Your task to perform on an android device: toggle airplane mode Image 0: 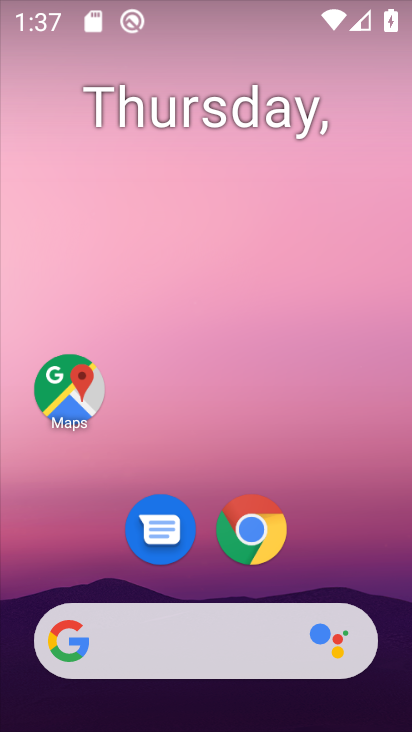
Step 0: drag from (305, 575) to (388, 131)
Your task to perform on an android device: toggle airplane mode Image 1: 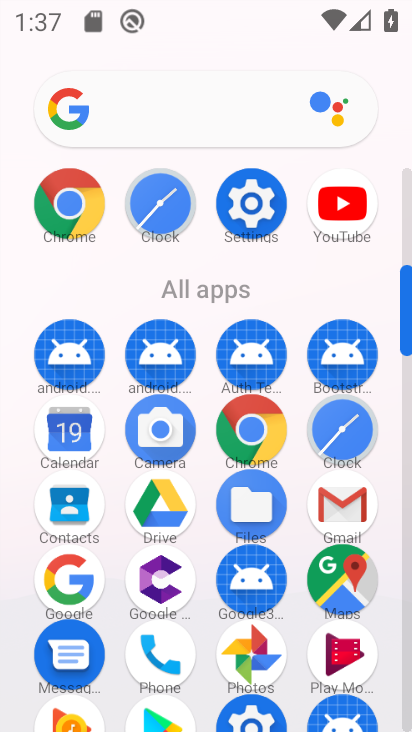
Step 1: click (245, 209)
Your task to perform on an android device: toggle airplane mode Image 2: 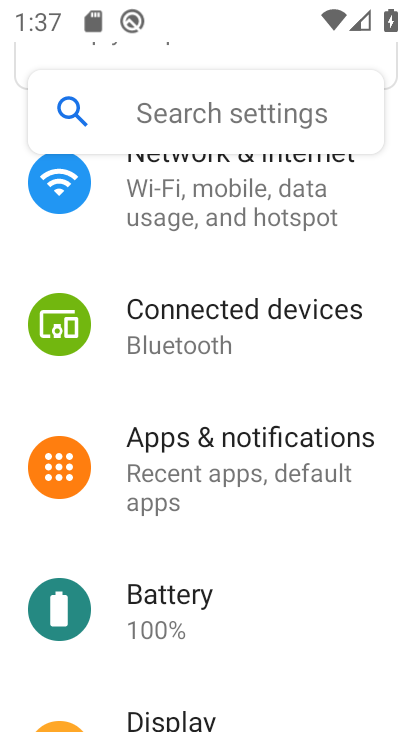
Step 2: click (250, 195)
Your task to perform on an android device: toggle airplane mode Image 3: 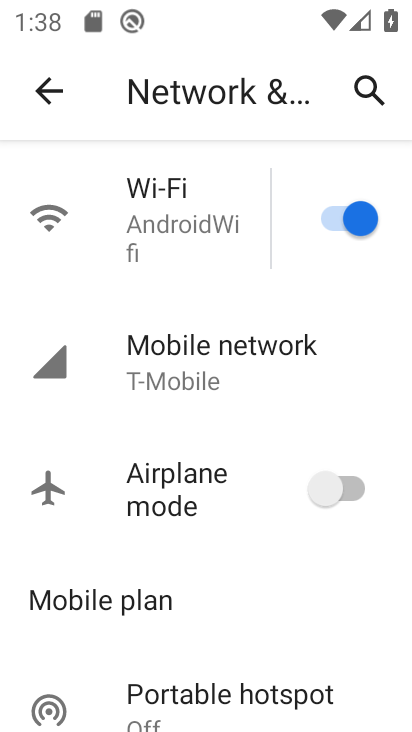
Step 3: click (339, 497)
Your task to perform on an android device: toggle airplane mode Image 4: 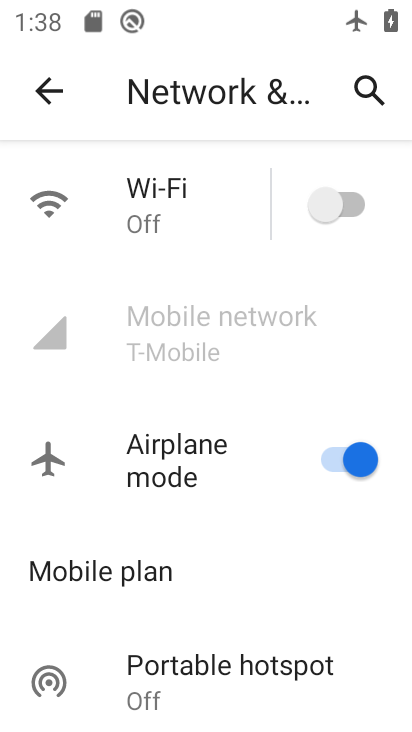
Step 4: task complete